Your task to perform on an android device: allow cookies in the chrome app Image 0: 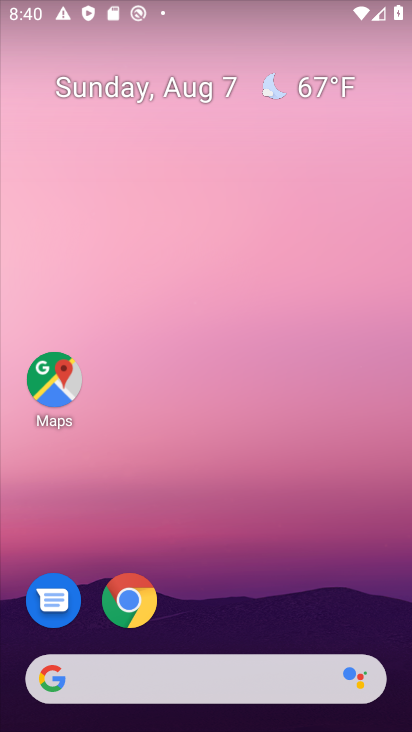
Step 0: click (129, 598)
Your task to perform on an android device: allow cookies in the chrome app Image 1: 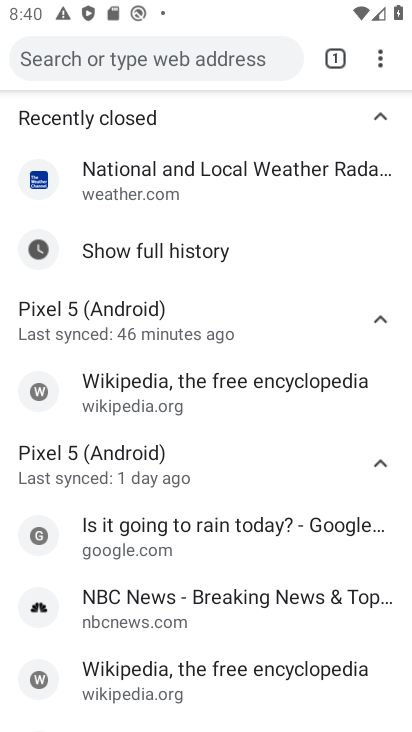
Step 1: click (376, 55)
Your task to perform on an android device: allow cookies in the chrome app Image 2: 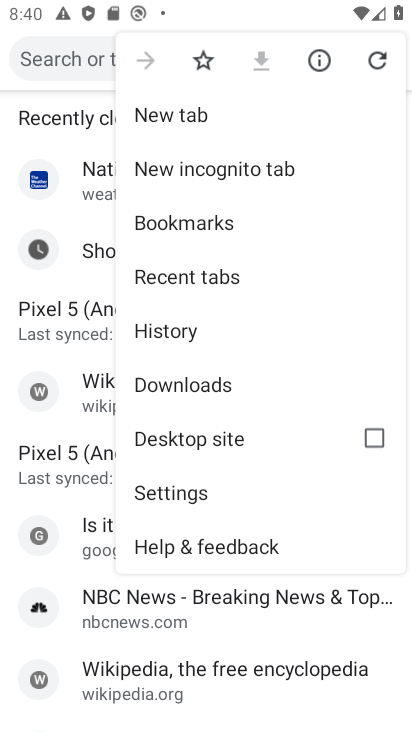
Step 2: click (182, 484)
Your task to perform on an android device: allow cookies in the chrome app Image 3: 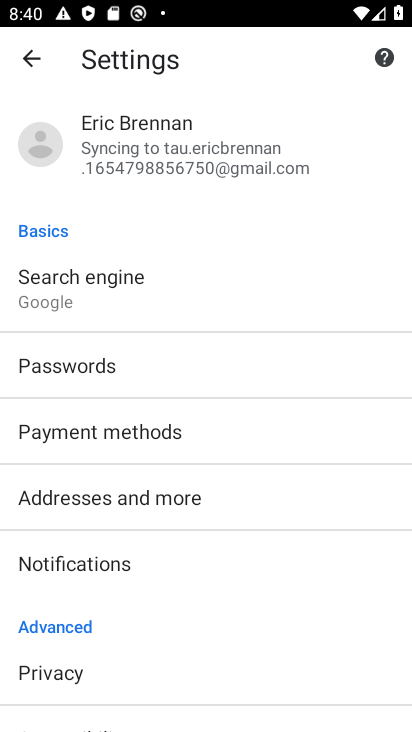
Step 3: drag from (103, 547) to (110, 361)
Your task to perform on an android device: allow cookies in the chrome app Image 4: 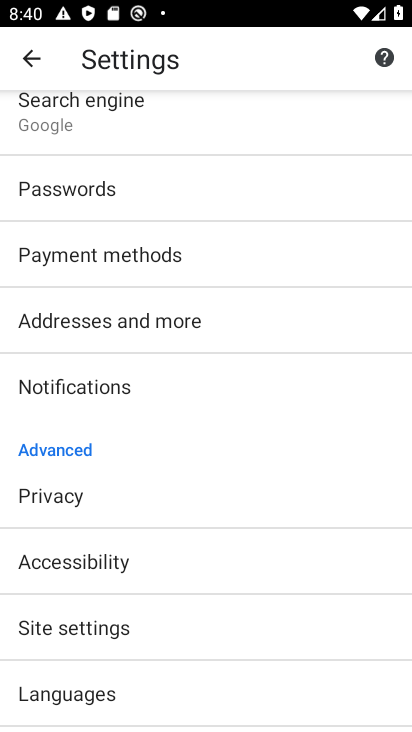
Step 4: click (105, 625)
Your task to perform on an android device: allow cookies in the chrome app Image 5: 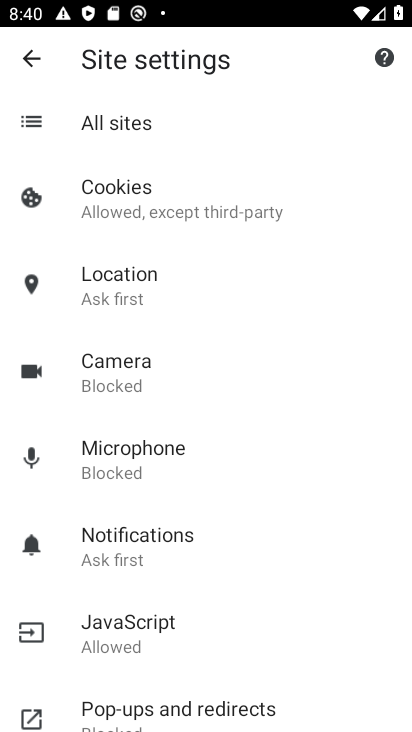
Step 5: click (160, 200)
Your task to perform on an android device: allow cookies in the chrome app Image 6: 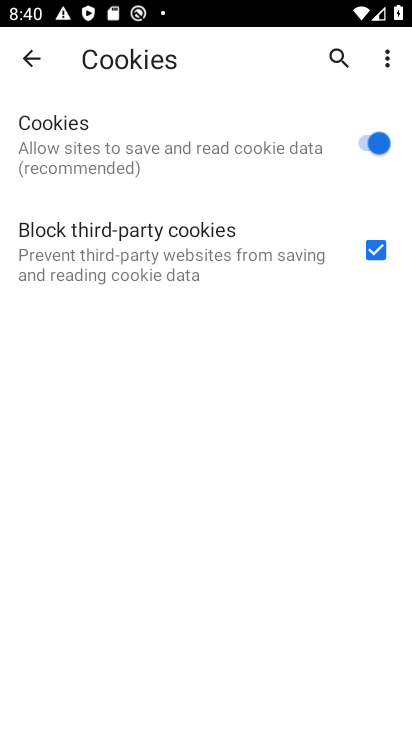
Step 6: task complete